Your task to perform on an android device: What's the weather? Image 0: 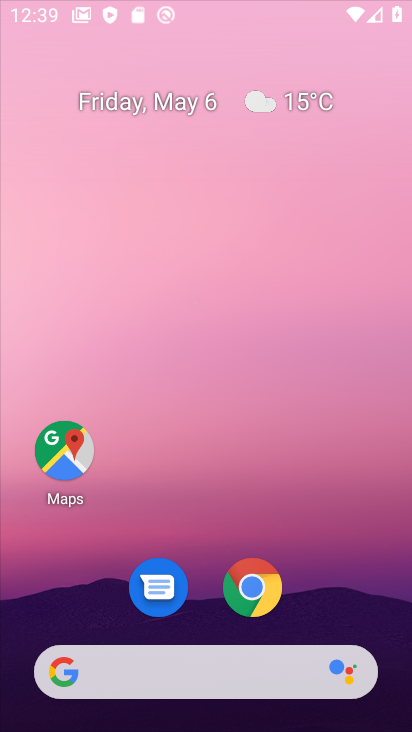
Step 0: click (265, 158)
Your task to perform on an android device: What's the weather? Image 1: 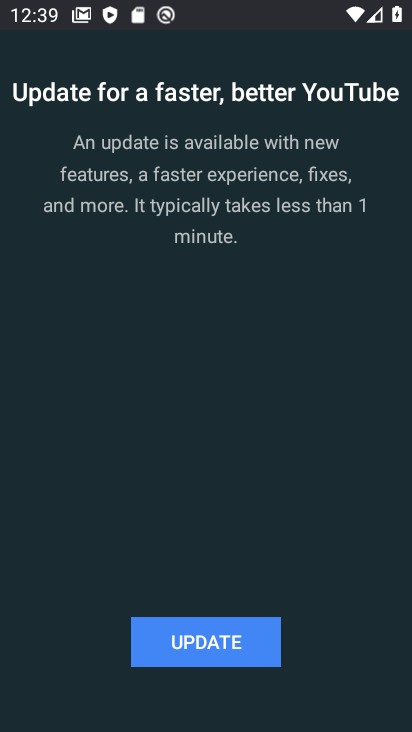
Step 1: task complete